Your task to perform on an android device: Open calendar and show me the fourth week of next month Image 0: 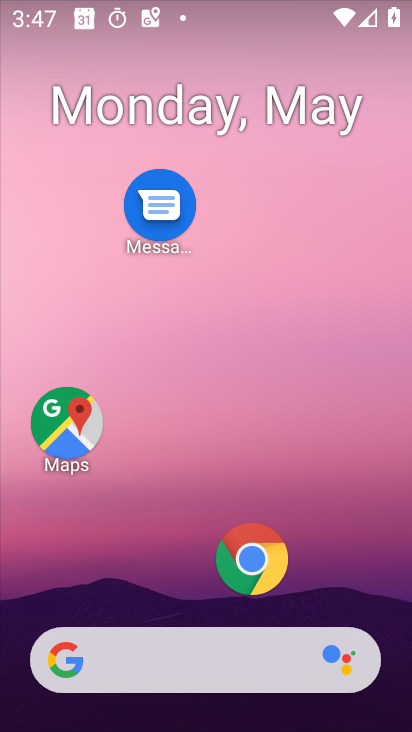
Step 0: drag from (177, 584) to (187, 113)
Your task to perform on an android device: Open calendar and show me the fourth week of next month Image 1: 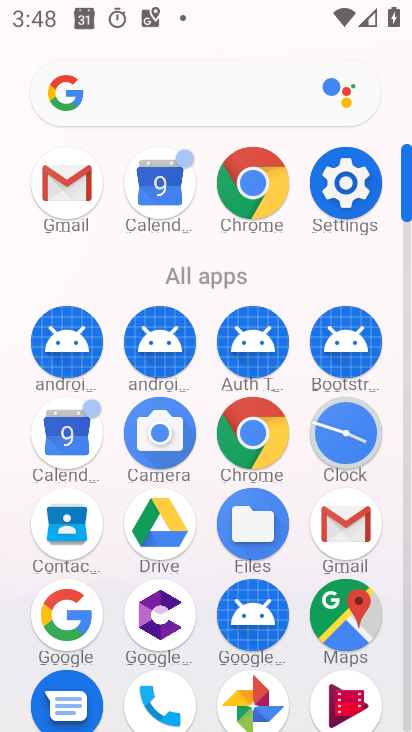
Step 1: drag from (240, 512) to (239, 180)
Your task to perform on an android device: Open calendar and show me the fourth week of next month Image 2: 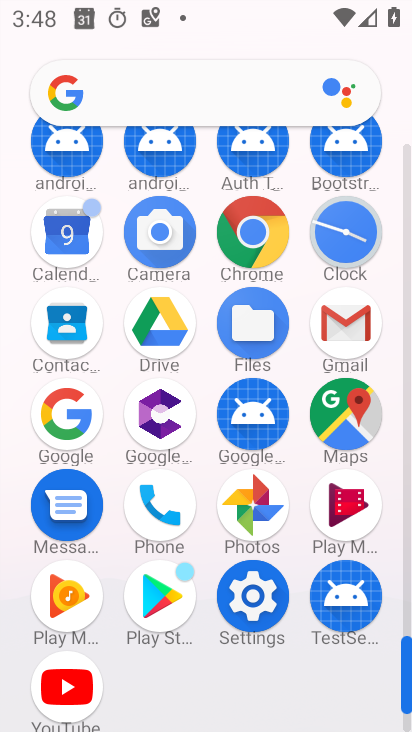
Step 2: click (69, 359)
Your task to perform on an android device: Open calendar and show me the fourth week of next month Image 3: 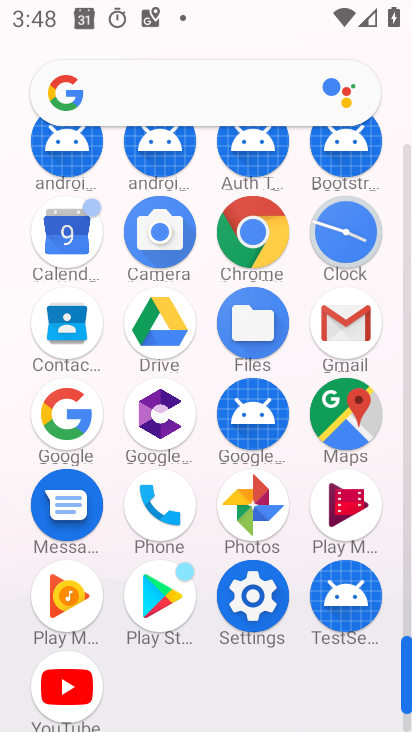
Step 3: click (66, 251)
Your task to perform on an android device: Open calendar and show me the fourth week of next month Image 4: 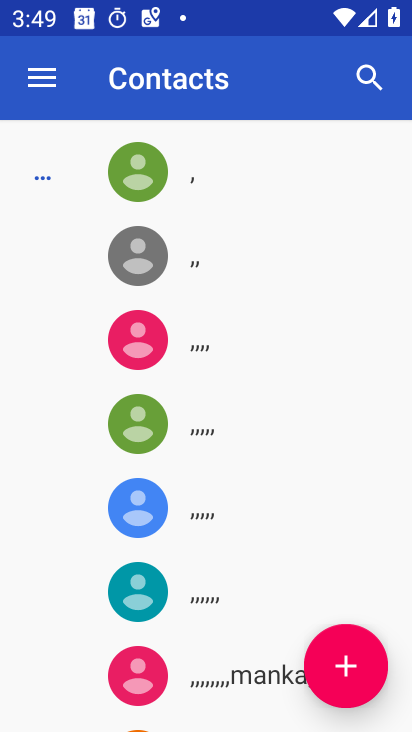
Step 4: press home button
Your task to perform on an android device: Open calendar and show me the fourth week of next month Image 5: 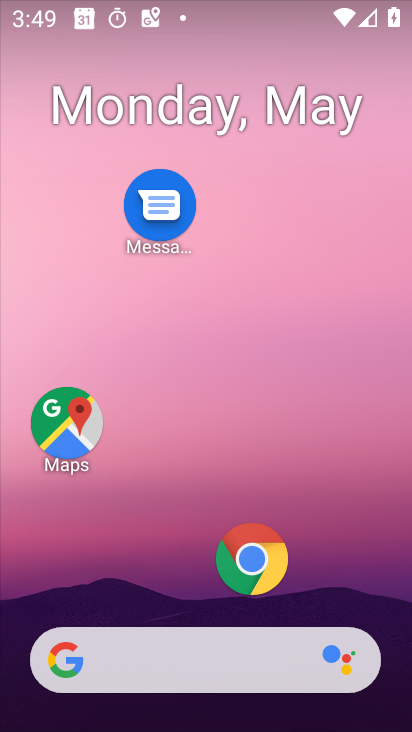
Step 5: drag from (149, 481) to (157, 120)
Your task to perform on an android device: Open calendar and show me the fourth week of next month Image 6: 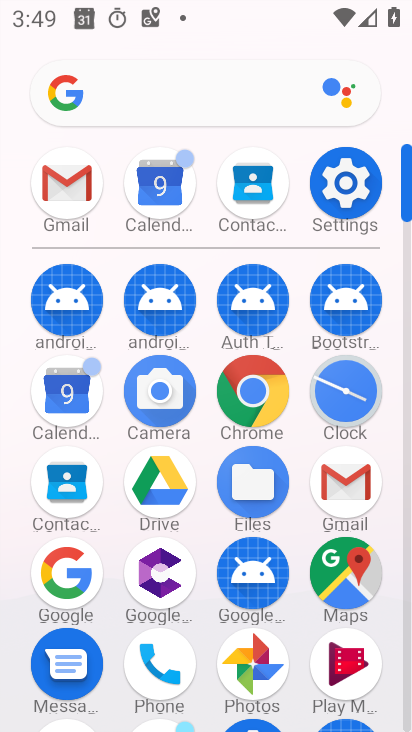
Step 6: click (62, 404)
Your task to perform on an android device: Open calendar and show me the fourth week of next month Image 7: 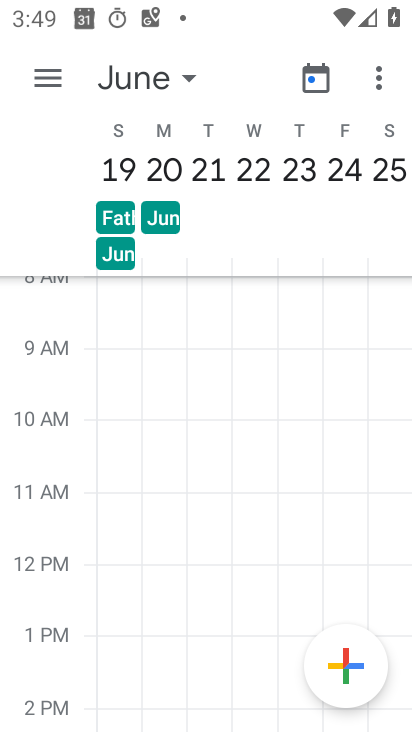
Step 7: click (182, 81)
Your task to perform on an android device: Open calendar and show me the fourth week of next month Image 8: 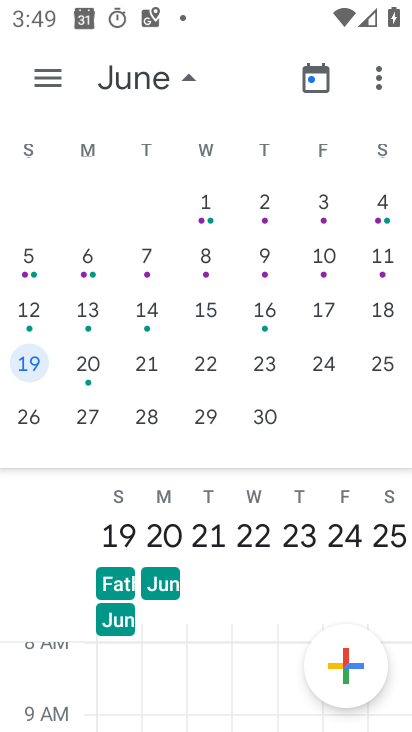
Step 8: drag from (391, 287) to (36, 304)
Your task to perform on an android device: Open calendar and show me the fourth week of next month Image 9: 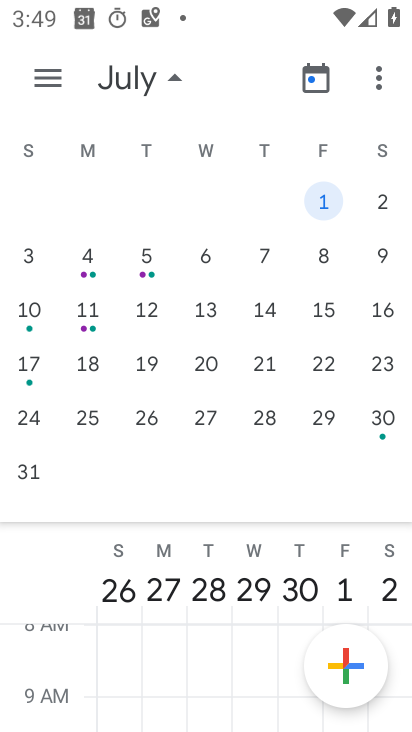
Step 9: drag from (51, 302) to (335, 278)
Your task to perform on an android device: Open calendar and show me the fourth week of next month Image 10: 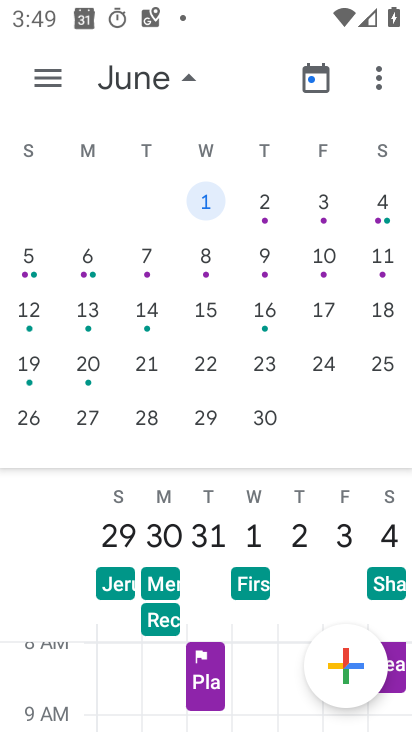
Step 10: click (207, 359)
Your task to perform on an android device: Open calendar and show me the fourth week of next month Image 11: 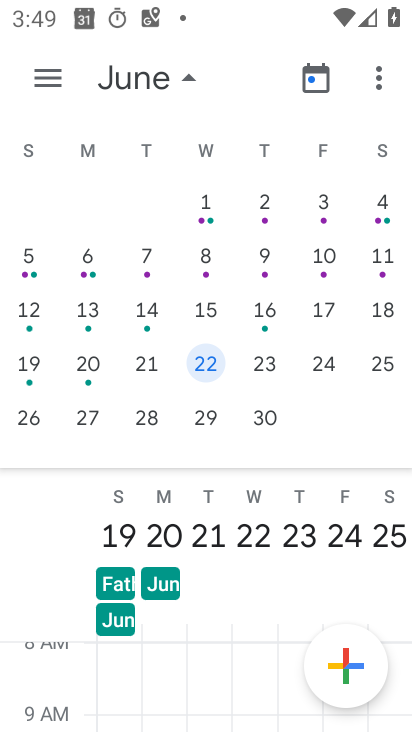
Step 11: click (41, 69)
Your task to perform on an android device: Open calendar and show me the fourth week of next month Image 12: 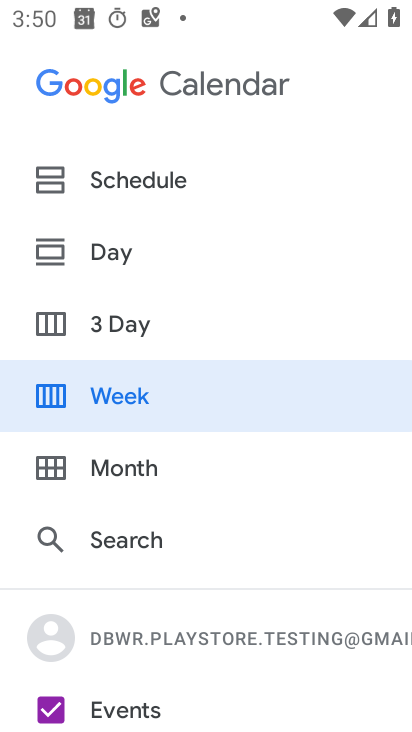
Step 12: click (146, 394)
Your task to perform on an android device: Open calendar and show me the fourth week of next month Image 13: 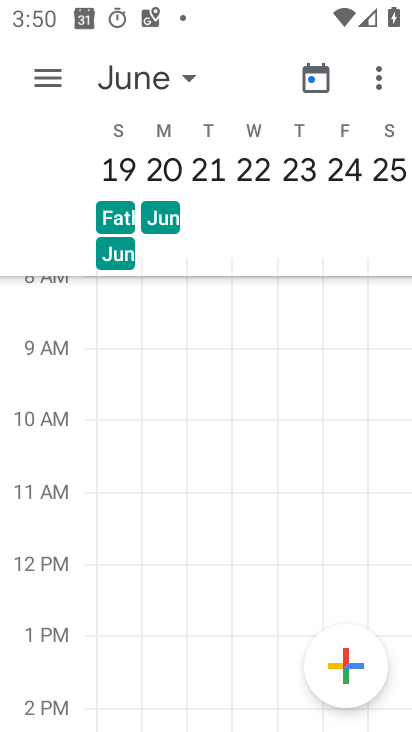
Step 13: task complete